Your task to perform on an android device: Go to notification settings Image 0: 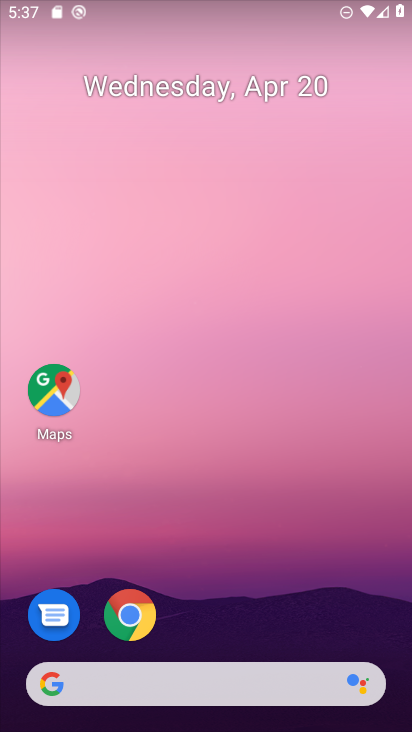
Step 0: drag from (300, 613) to (271, 76)
Your task to perform on an android device: Go to notification settings Image 1: 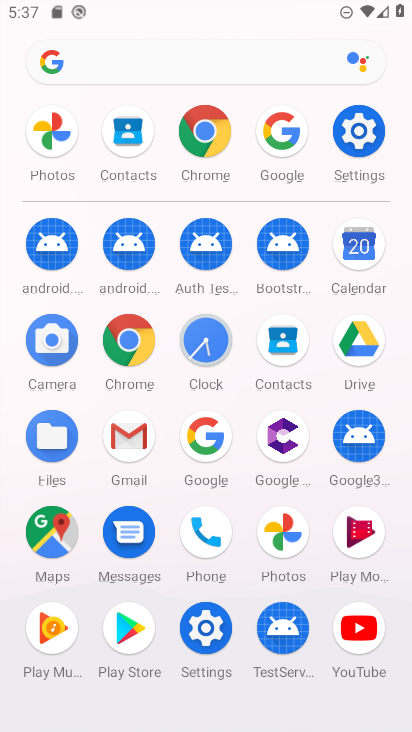
Step 1: click (349, 127)
Your task to perform on an android device: Go to notification settings Image 2: 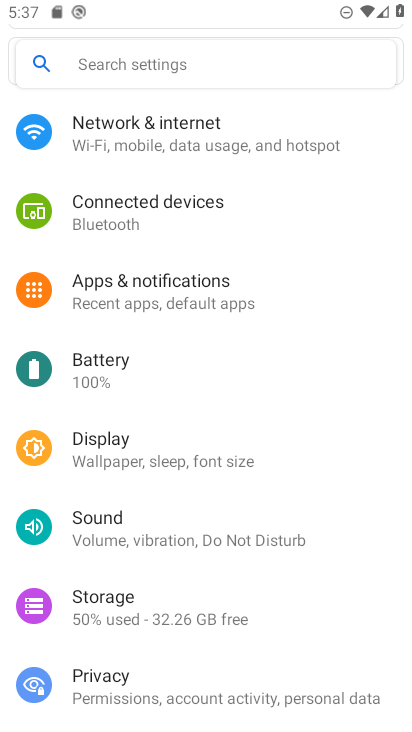
Step 2: click (188, 294)
Your task to perform on an android device: Go to notification settings Image 3: 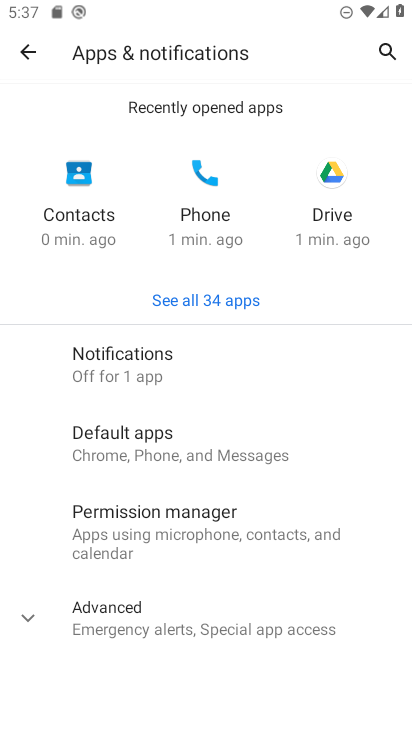
Step 3: task complete